Your task to perform on an android device: Show me popular games on the Play Store Image 0: 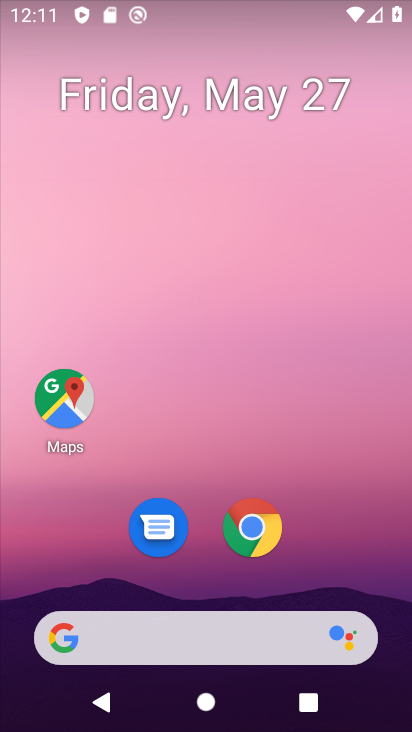
Step 0: drag from (272, 660) to (281, 154)
Your task to perform on an android device: Show me popular games on the Play Store Image 1: 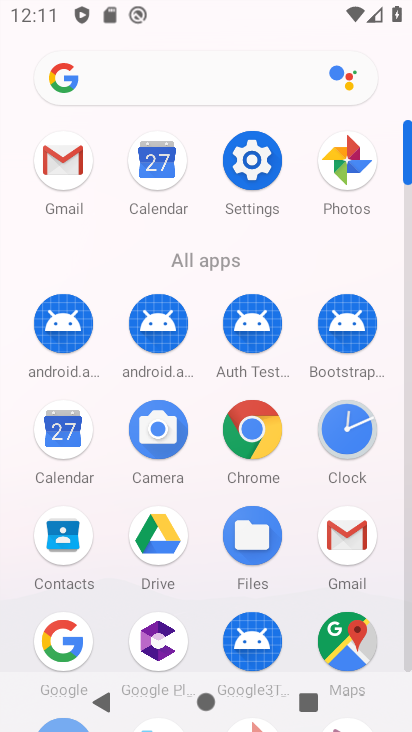
Step 1: drag from (342, 607) to (289, 113)
Your task to perform on an android device: Show me popular games on the Play Store Image 2: 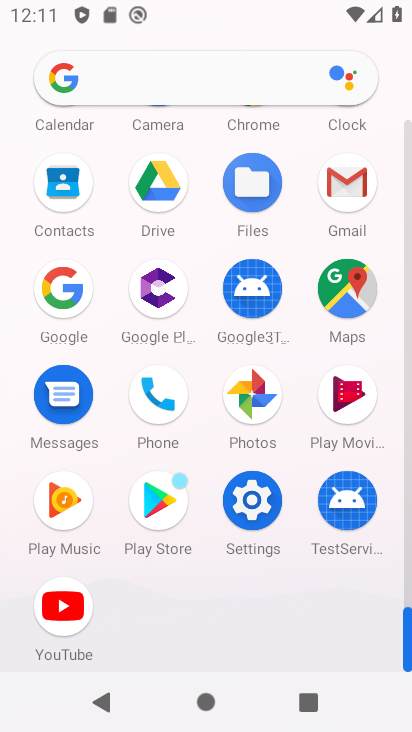
Step 2: click (153, 503)
Your task to perform on an android device: Show me popular games on the Play Store Image 3: 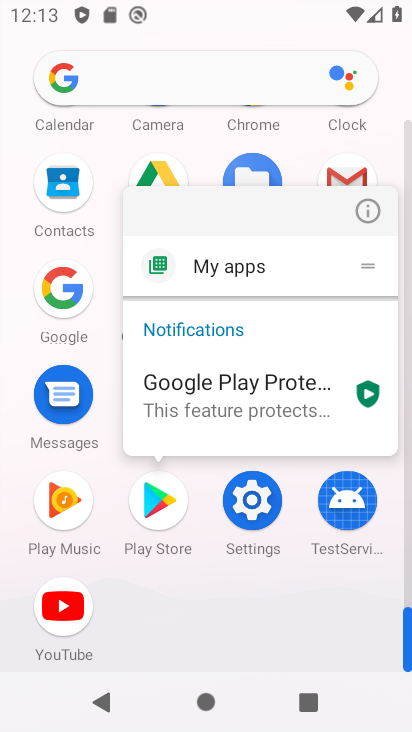
Step 3: click (165, 502)
Your task to perform on an android device: Show me popular games on the Play Store Image 4: 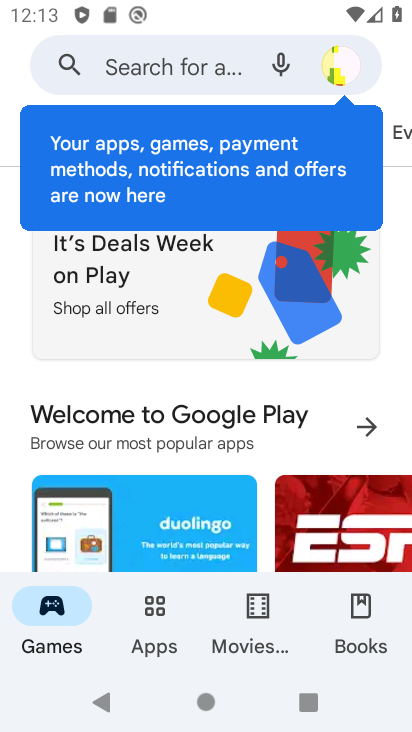
Step 4: task complete